Your task to perform on an android device: Clear the shopping cart on costco.com. Add "beats solo 3" to the cart on costco.com, then select checkout. Image 0: 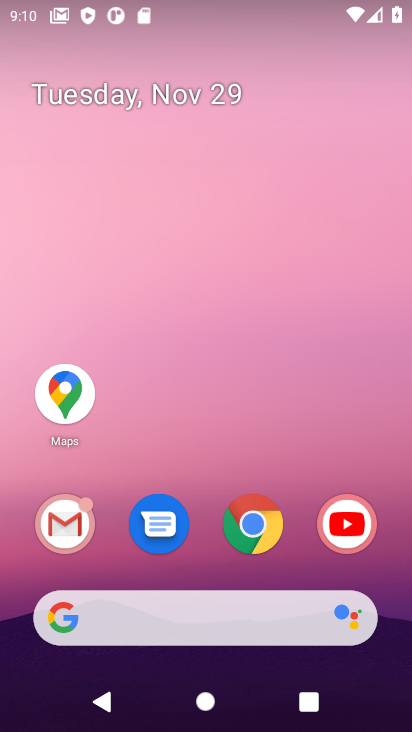
Step 0: click (252, 530)
Your task to perform on an android device: Clear the shopping cart on costco.com. Add "beats solo 3" to the cart on costco.com, then select checkout. Image 1: 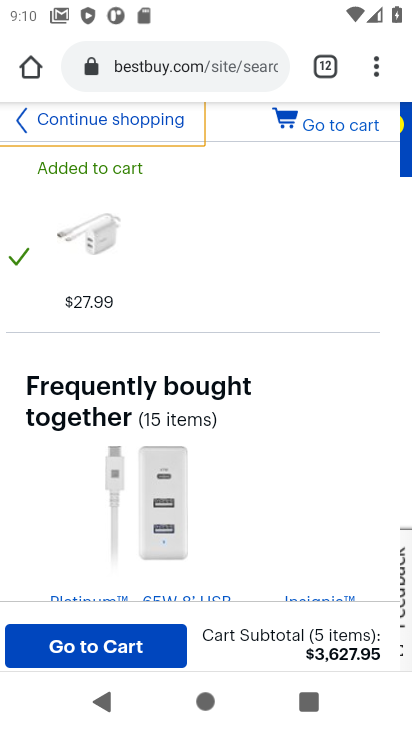
Step 1: click (187, 64)
Your task to perform on an android device: Clear the shopping cart on costco.com. Add "beats solo 3" to the cart on costco.com, then select checkout. Image 2: 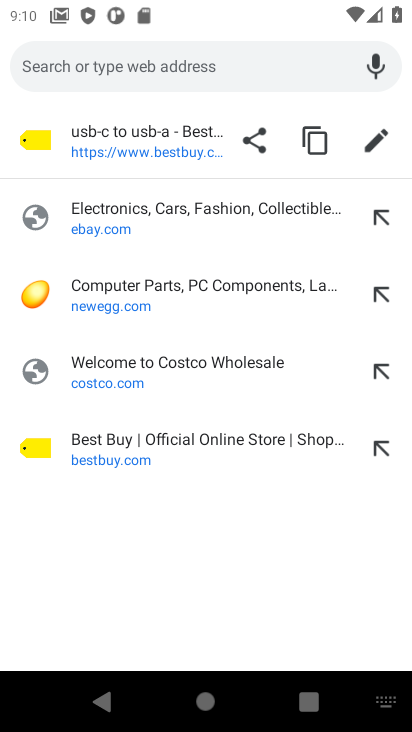
Step 2: click (94, 373)
Your task to perform on an android device: Clear the shopping cart on costco.com. Add "beats solo 3" to the cart on costco.com, then select checkout. Image 3: 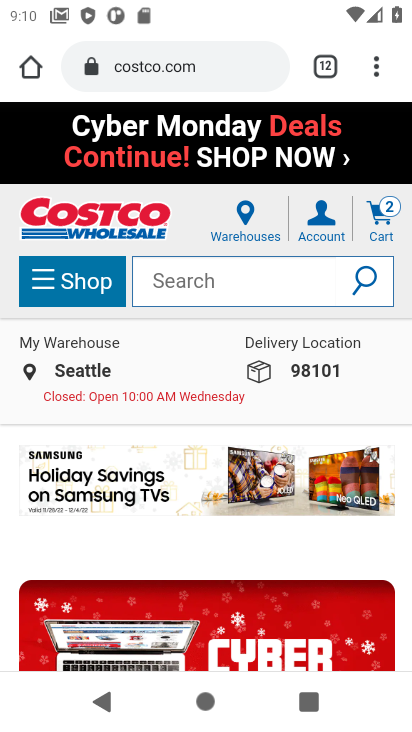
Step 3: click (380, 219)
Your task to perform on an android device: Clear the shopping cart on costco.com. Add "beats solo 3" to the cart on costco.com, then select checkout. Image 4: 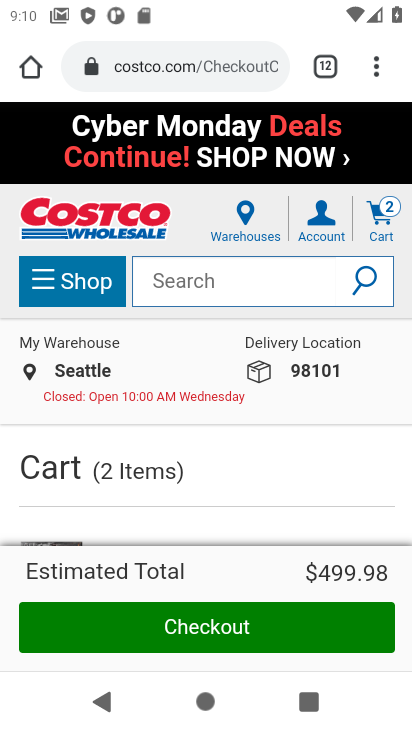
Step 4: drag from (234, 456) to (234, 335)
Your task to perform on an android device: Clear the shopping cart on costco.com. Add "beats solo 3" to the cart on costco.com, then select checkout. Image 5: 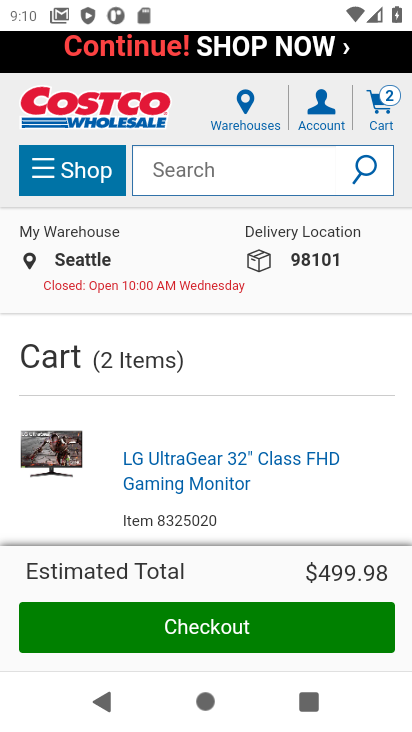
Step 5: drag from (261, 492) to (253, 263)
Your task to perform on an android device: Clear the shopping cart on costco.com. Add "beats solo 3" to the cart on costco.com, then select checkout. Image 6: 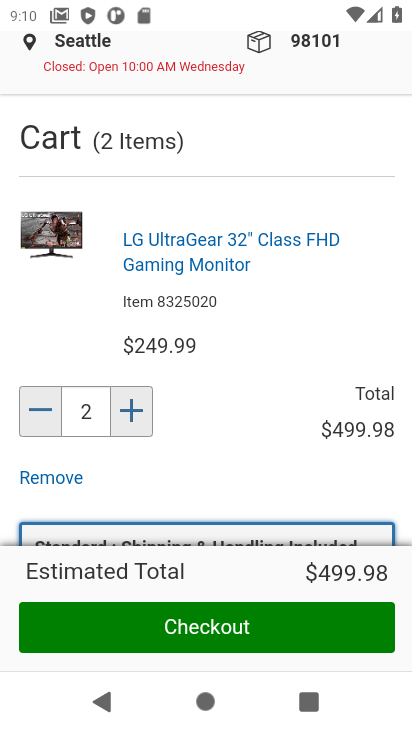
Step 6: drag from (225, 450) to (204, 182)
Your task to perform on an android device: Clear the shopping cart on costco.com. Add "beats solo 3" to the cart on costco.com, then select checkout. Image 7: 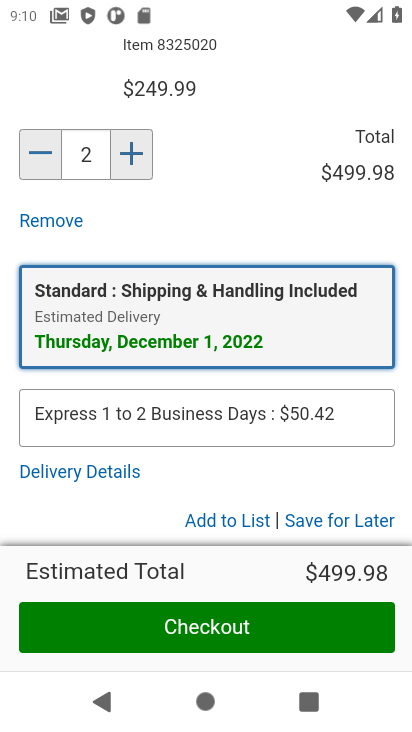
Step 7: drag from (192, 334) to (174, 67)
Your task to perform on an android device: Clear the shopping cart on costco.com. Add "beats solo 3" to the cart on costco.com, then select checkout. Image 8: 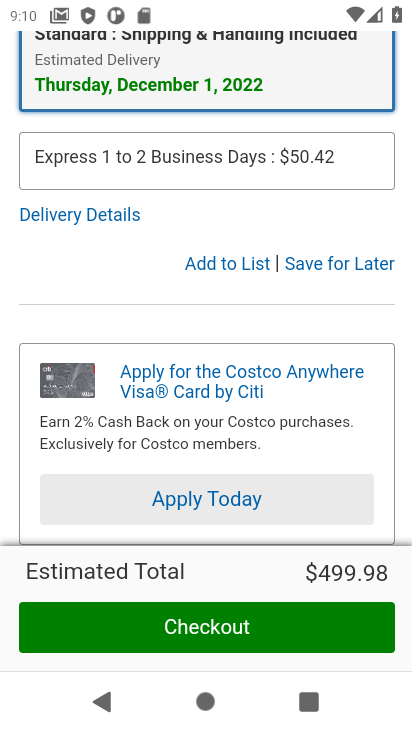
Step 8: click (318, 264)
Your task to perform on an android device: Clear the shopping cart on costco.com. Add "beats solo 3" to the cart on costco.com, then select checkout. Image 9: 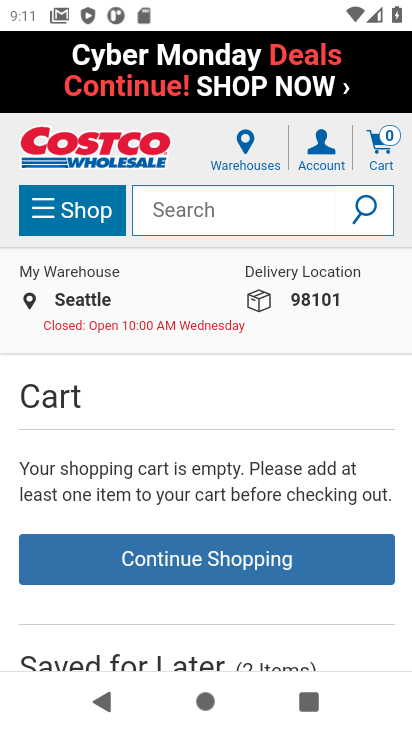
Step 9: click (170, 214)
Your task to perform on an android device: Clear the shopping cart on costco.com. Add "beats solo 3" to the cart on costco.com, then select checkout. Image 10: 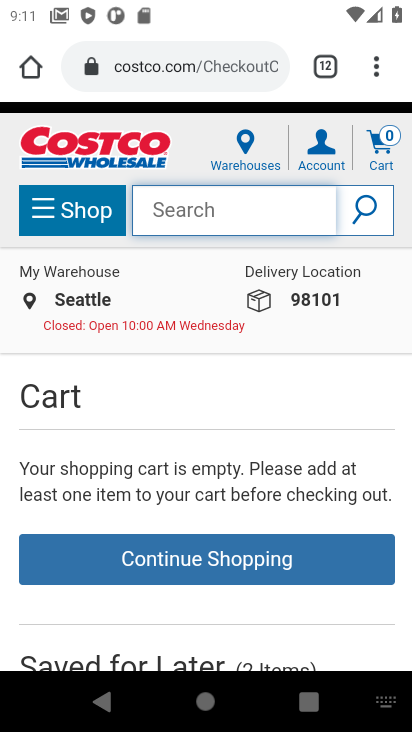
Step 10: type "beats solo 3"
Your task to perform on an android device: Clear the shopping cart on costco.com. Add "beats solo 3" to the cart on costco.com, then select checkout. Image 11: 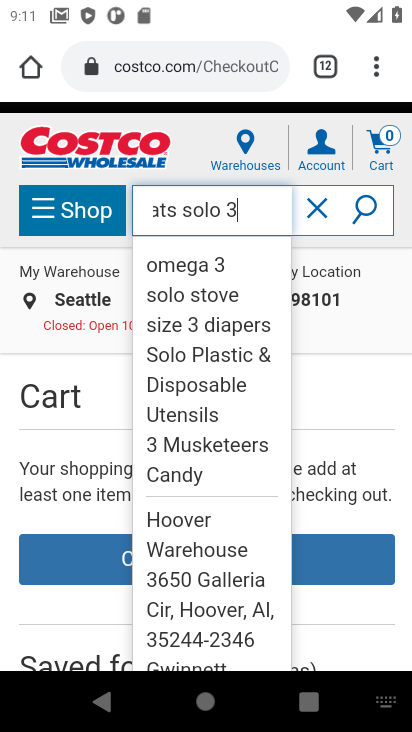
Step 11: click (358, 205)
Your task to perform on an android device: Clear the shopping cart on costco.com. Add "beats solo 3" to the cart on costco.com, then select checkout. Image 12: 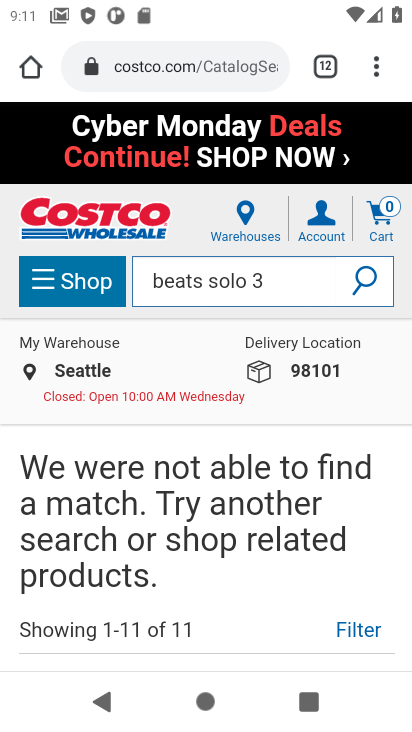
Step 12: task complete